Your task to perform on an android device: Go to sound settings Image 0: 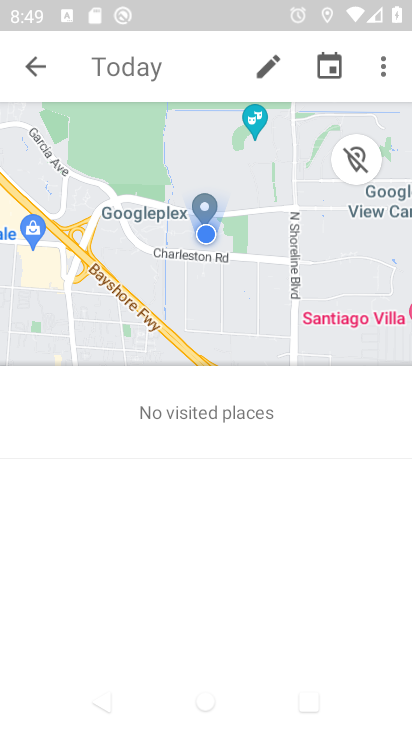
Step 0: press home button
Your task to perform on an android device: Go to sound settings Image 1: 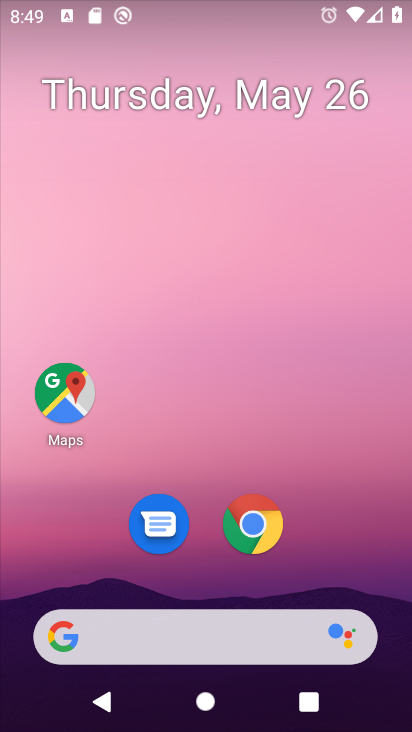
Step 1: drag from (233, 405) to (226, 19)
Your task to perform on an android device: Go to sound settings Image 2: 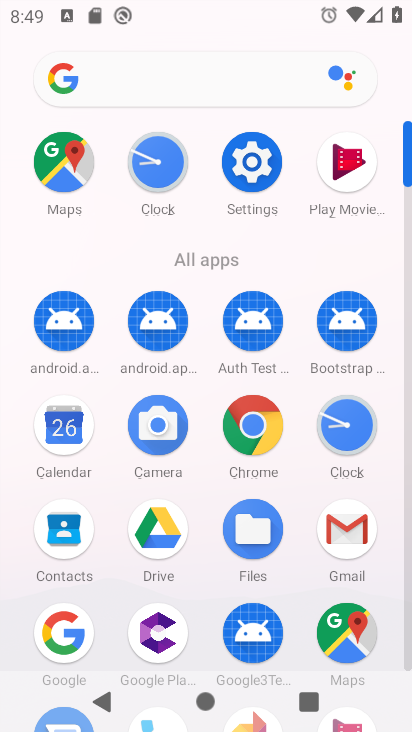
Step 2: click (248, 160)
Your task to perform on an android device: Go to sound settings Image 3: 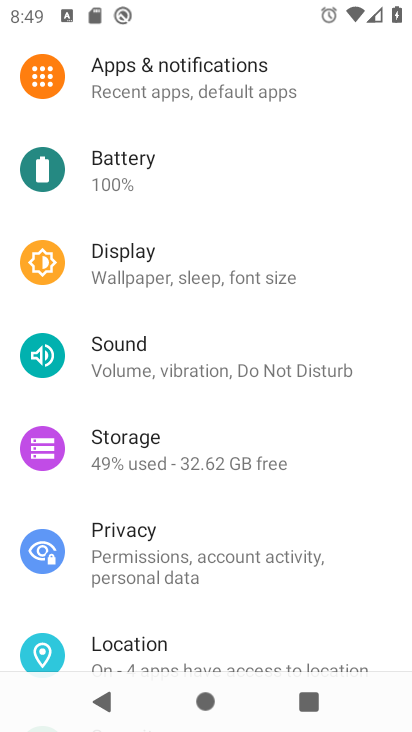
Step 3: click (215, 362)
Your task to perform on an android device: Go to sound settings Image 4: 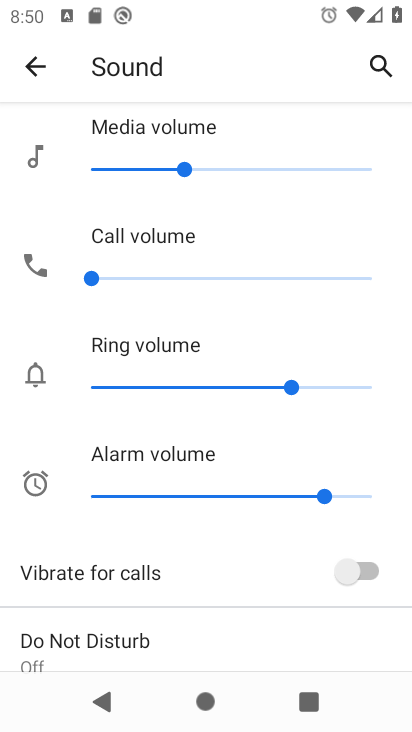
Step 4: task complete